Your task to perform on an android device: toggle notification dots Image 0: 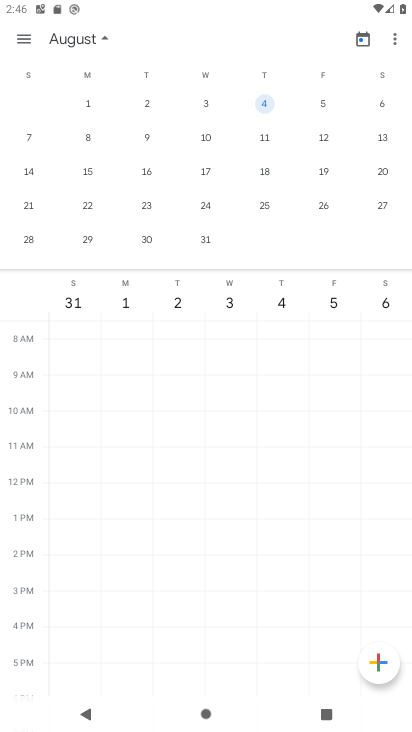
Step 0: press home button
Your task to perform on an android device: toggle notification dots Image 1: 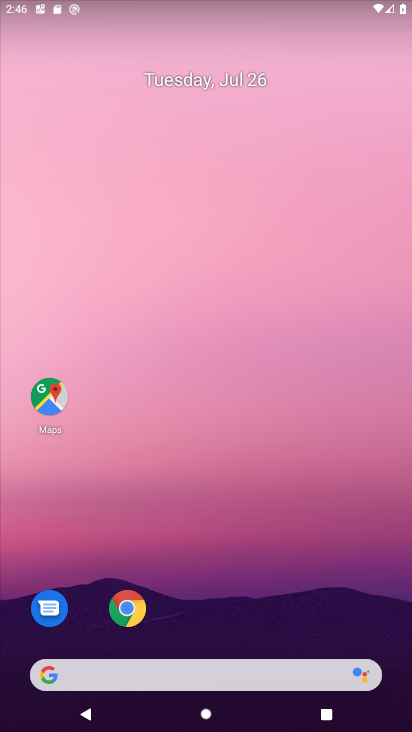
Step 1: drag from (289, 639) to (203, 66)
Your task to perform on an android device: toggle notification dots Image 2: 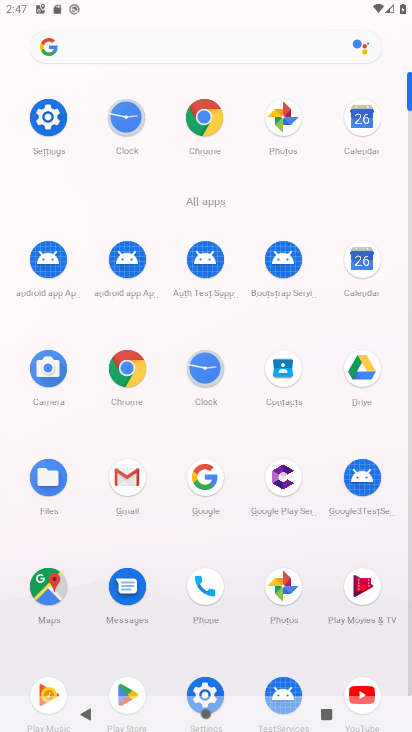
Step 2: click (49, 106)
Your task to perform on an android device: toggle notification dots Image 3: 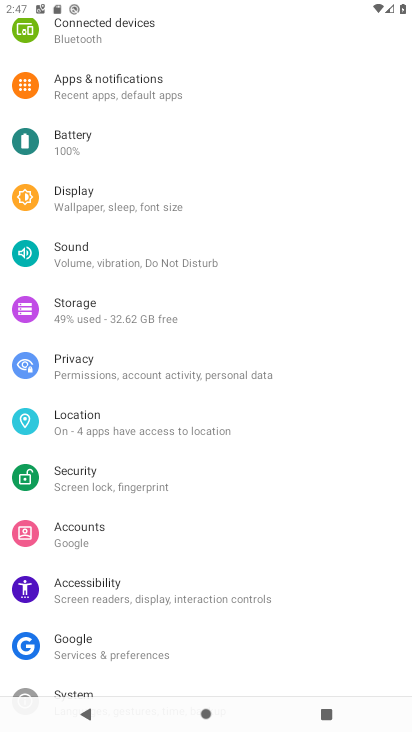
Step 3: click (142, 98)
Your task to perform on an android device: toggle notification dots Image 4: 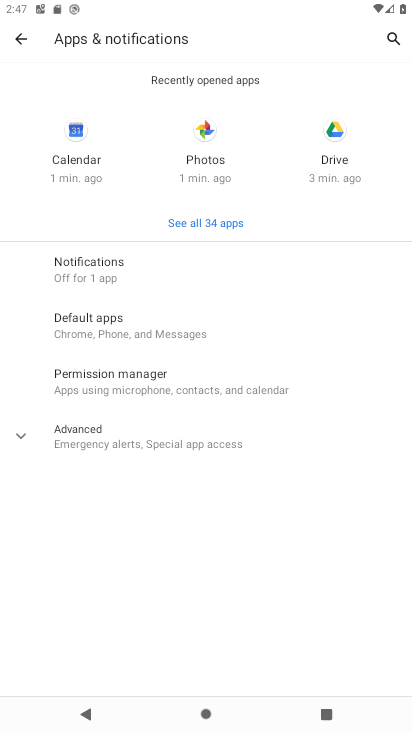
Step 4: click (127, 439)
Your task to perform on an android device: toggle notification dots Image 5: 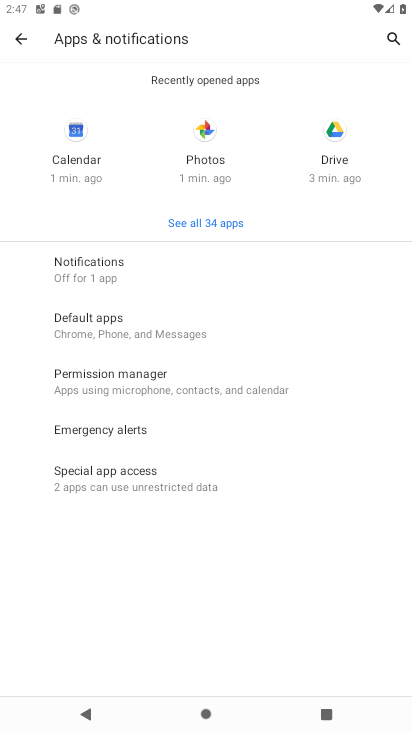
Step 5: click (108, 269)
Your task to perform on an android device: toggle notification dots Image 6: 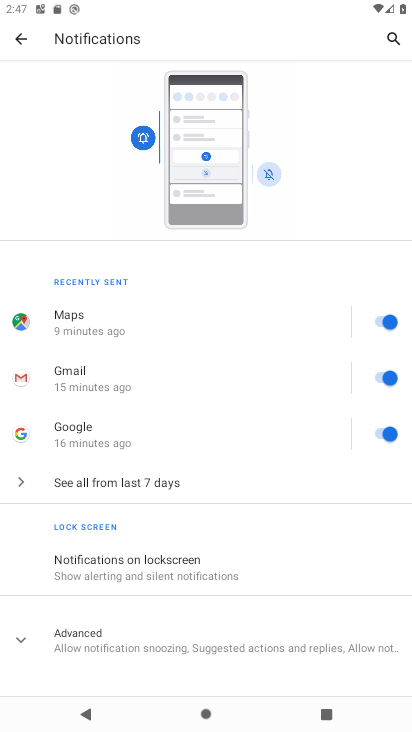
Step 6: drag from (227, 574) to (173, 407)
Your task to perform on an android device: toggle notification dots Image 7: 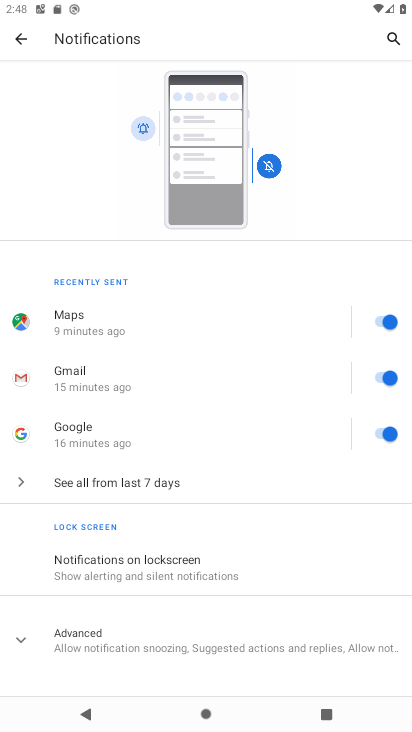
Step 7: click (134, 627)
Your task to perform on an android device: toggle notification dots Image 8: 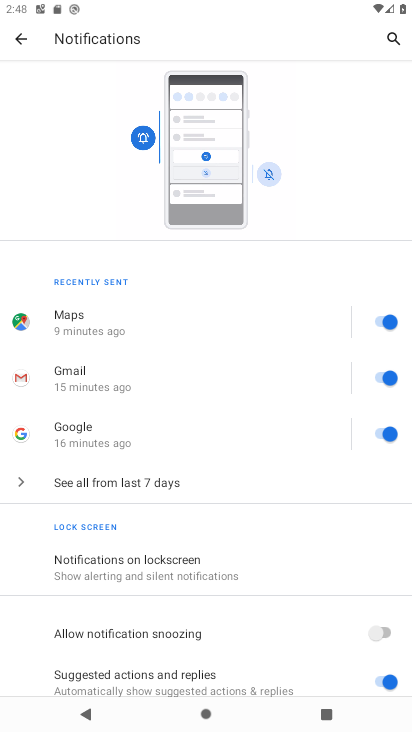
Step 8: drag from (250, 634) to (203, 516)
Your task to perform on an android device: toggle notification dots Image 9: 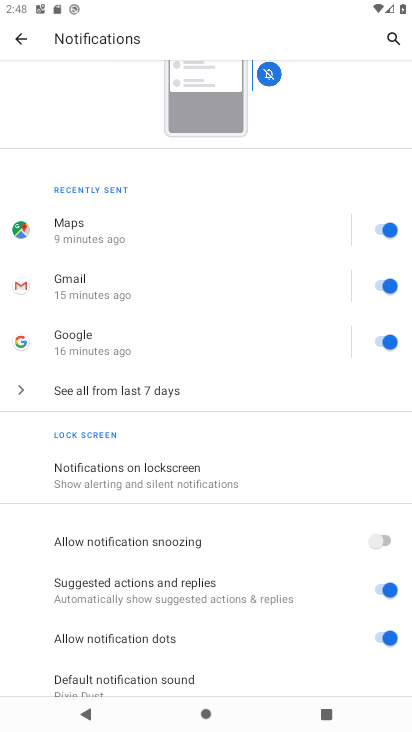
Step 9: click (394, 642)
Your task to perform on an android device: toggle notification dots Image 10: 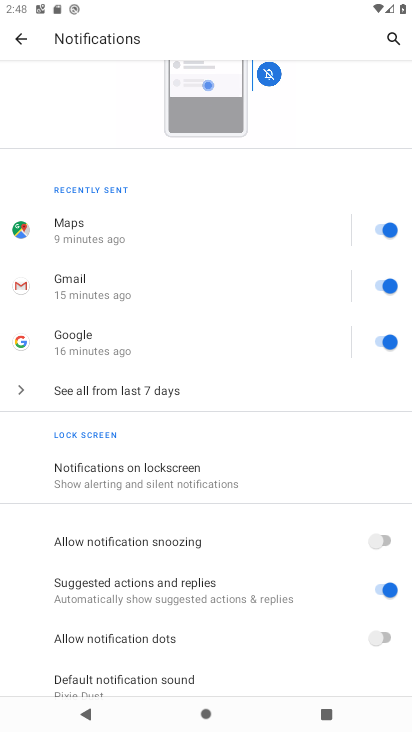
Step 10: task complete